Your task to perform on an android device: turn on data saver in the chrome app Image 0: 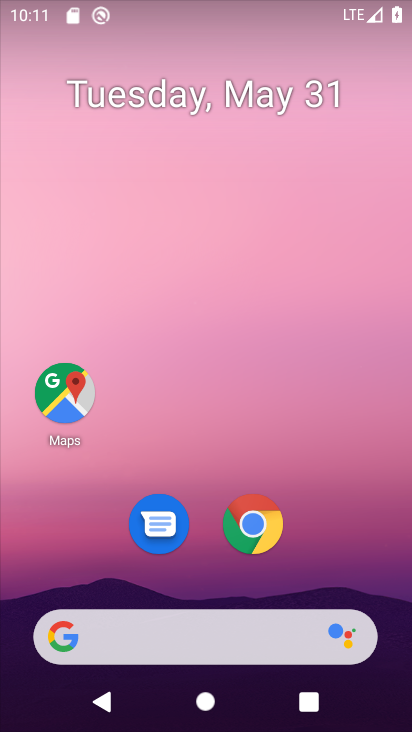
Step 0: click (259, 516)
Your task to perform on an android device: turn on data saver in the chrome app Image 1: 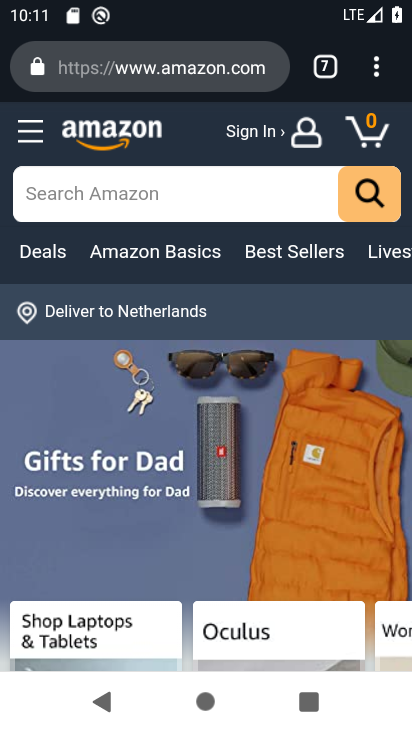
Step 1: click (371, 64)
Your task to perform on an android device: turn on data saver in the chrome app Image 2: 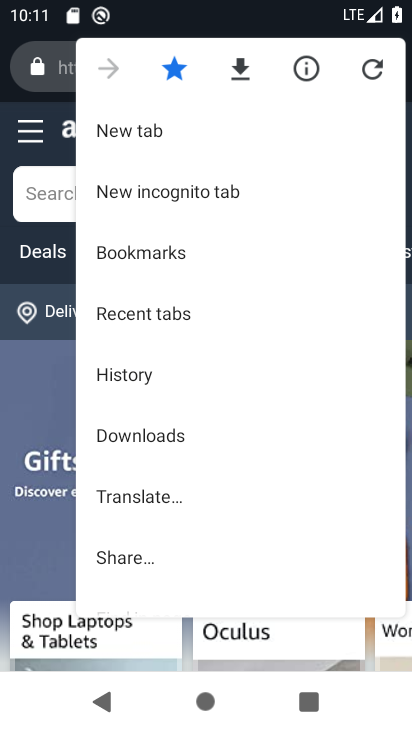
Step 2: drag from (233, 485) to (263, 177)
Your task to perform on an android device: turn on data saver in the chrome app Image 3: 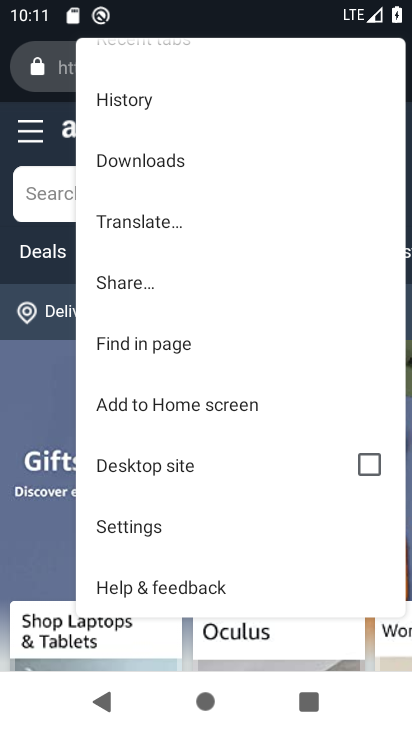
Step 3: drag from (211, 487) to (212, 284)
Your task to perform on an android device: turn on data saver in the chrome app Image 4: 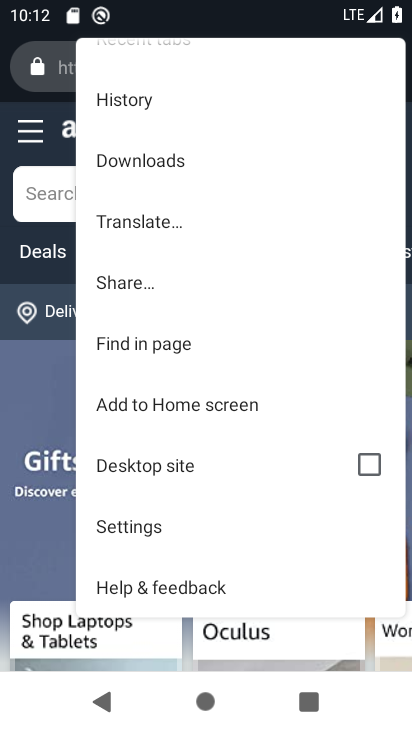
Step 4: click (160, 527)
Your task to perform on an android device: turn on data saver in the chrome app Image 5: 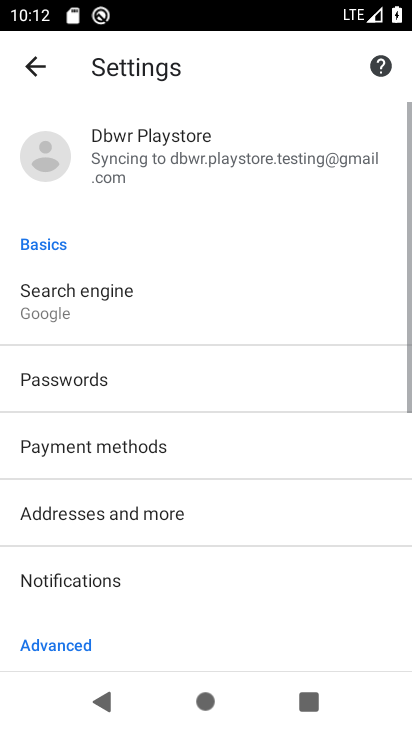
Step 5: drag from (245, 462) to (271, 202)
Your task to perform on an android device: turn on data saver in the chrome app Image 6: 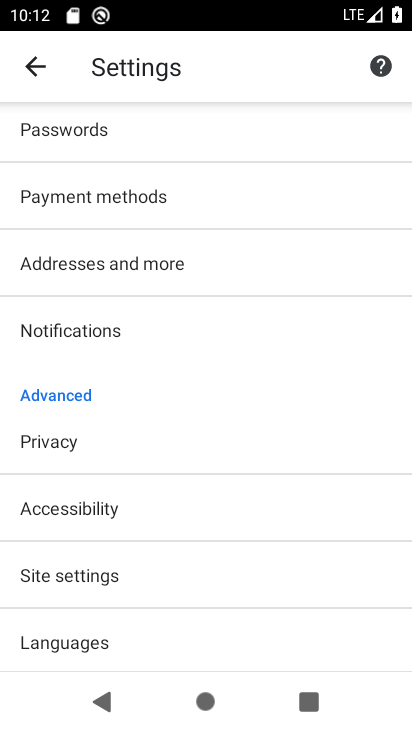
Step 6: drag from (213, 574) to (236, 352)
Your task to perform on an android device: turn on data saver in the chrome app Image 7: 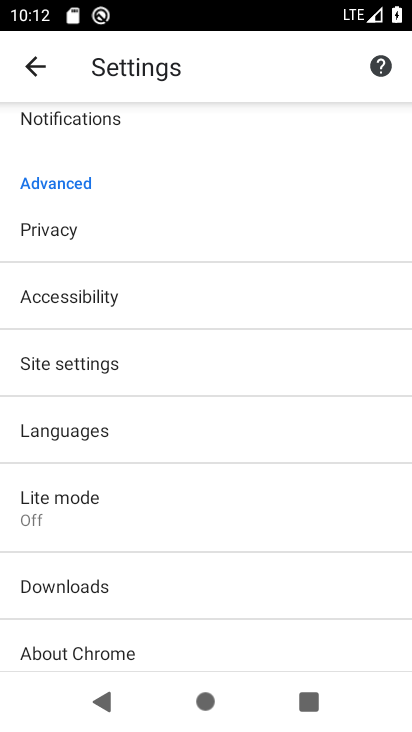
Step 7: click (190, 518)
Your task to perform on an android device: turn on data saver in the chrome app Image 8: 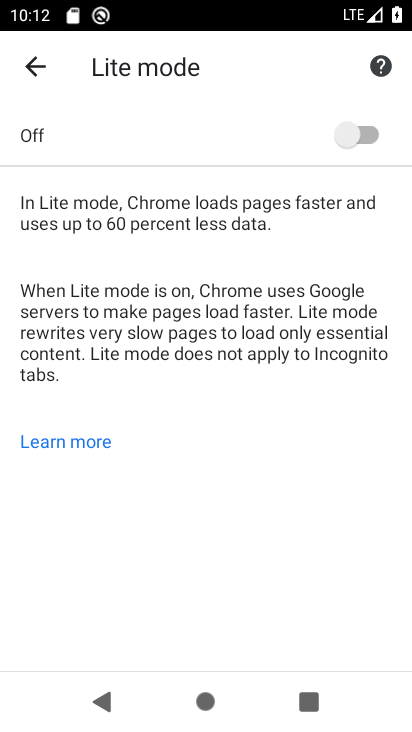
Step 8: click (359, 131)
Your task to perform on an android device: turn on data saver in the chrome app Image 9: 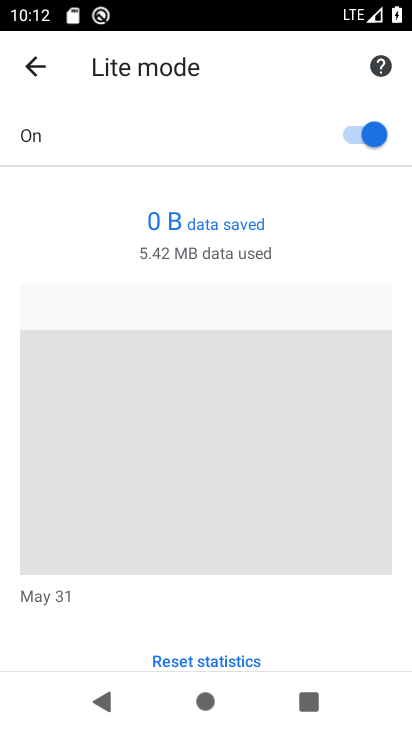
Step 9: task complete